Your task to perform on an android device: change your default location settings in chrome Image 0: 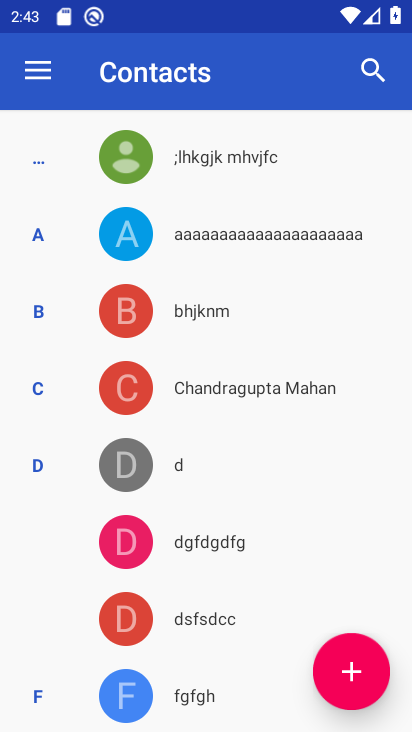
Step 0: press home button
Your task to perform on an android device: change your default location settings in chrome Image 1: 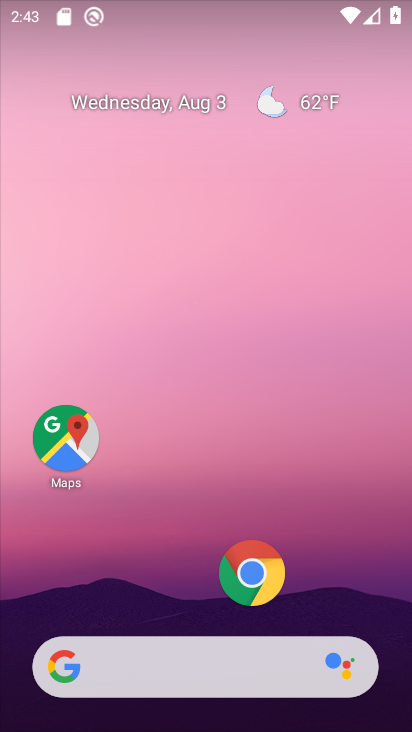
Step 1: click (258, 566)
Your task to perform on an android device: change your default location settings in chrome Image 2: 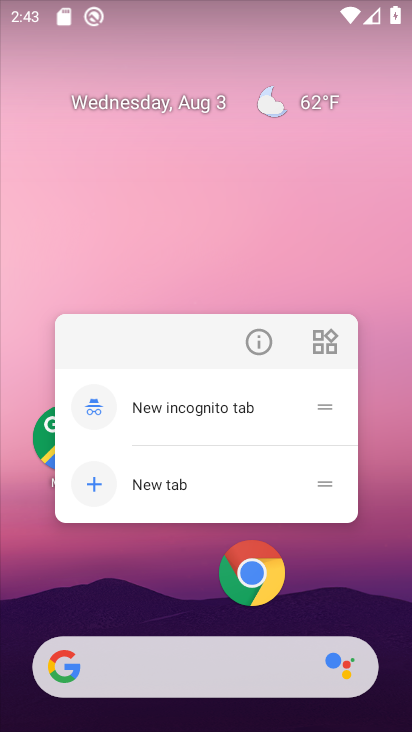
Step 2: click (270, 578)
Your task to perform on an android device: change your default location settings in chrome Image 3: 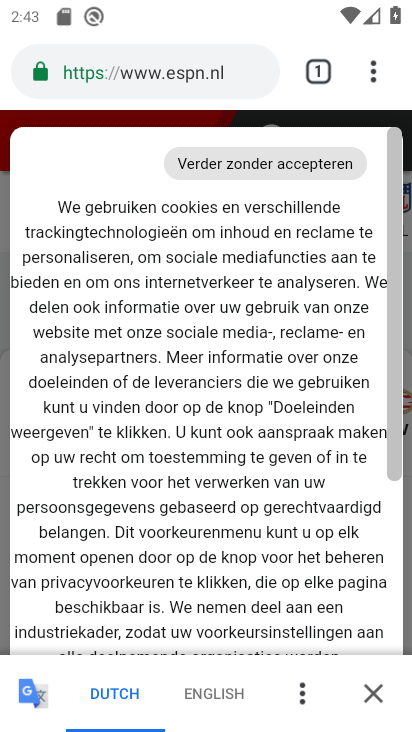
Step 3: click (181, 63)
Your task to perform on an android device: change your default location settings in chrome Image 4: 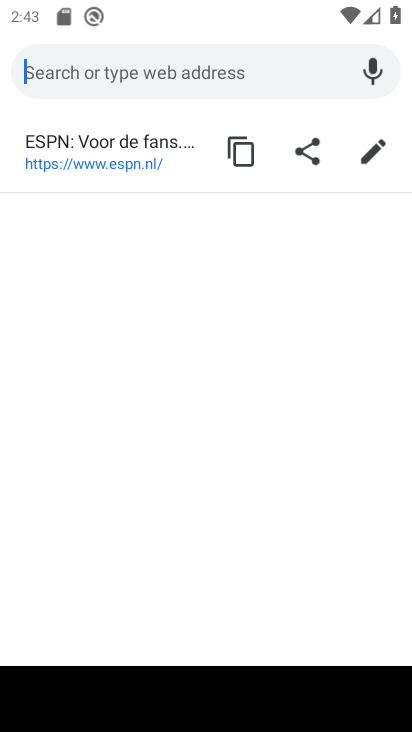
Step 4: press back button
Your task to perform on an android device: change your default location settings in chrome Image 5: 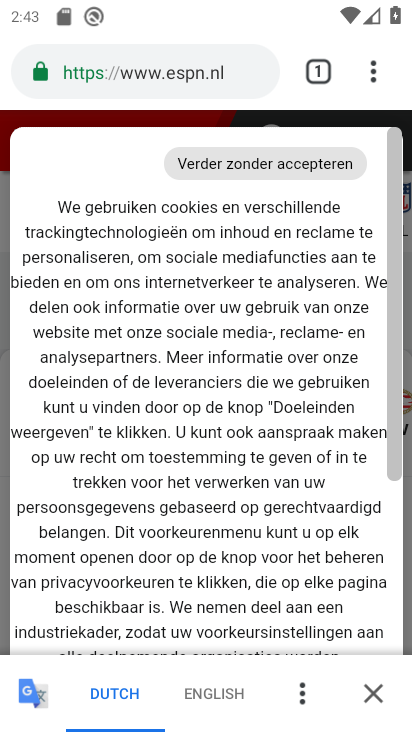
Step 5: click (375, 58)
Your task to perform on an android device: change your default location settings in chrome Image 6: 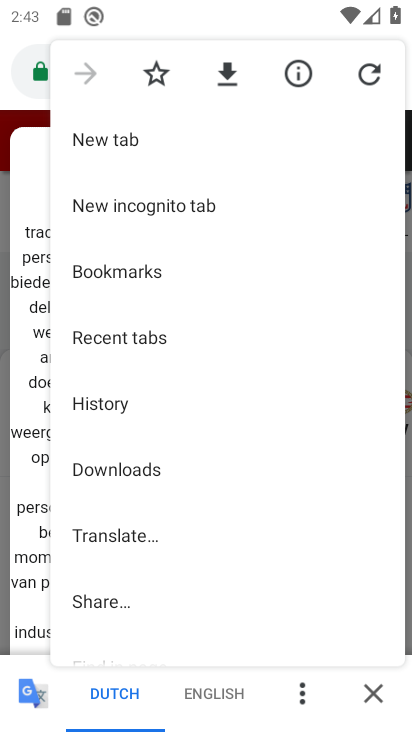
Step 6: drag from (145, 576) to (166, 238)
Your task to perform on an android device: change your default location settings in chrome Image 7: 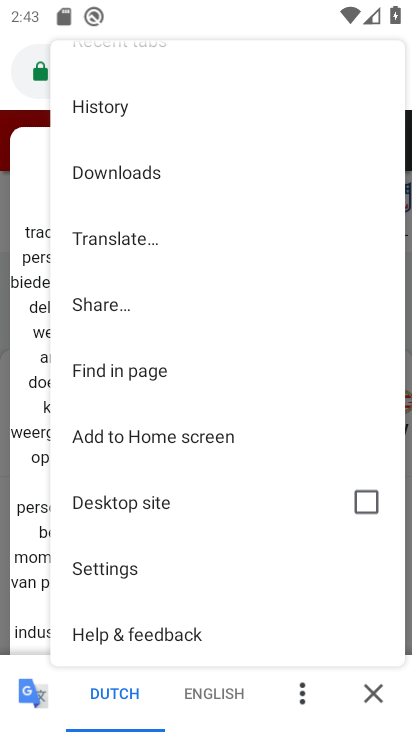
Step 7: click (123, 568)
Your task to perform on an android device: change your default location settings in chrome Image 8: 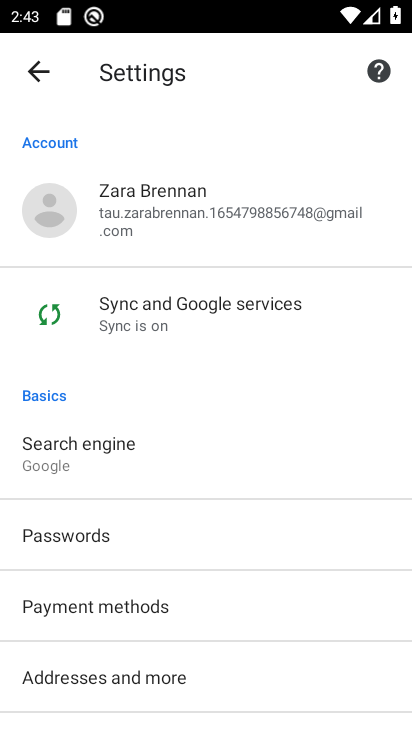
Step 8: drag from (183, 546) to (163, 267)
Your task to perform on an android device: change your default location settings in chrome Image 9: 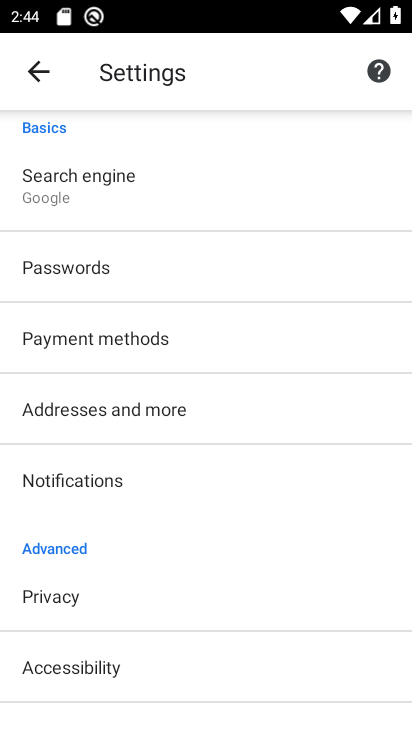
Step 9: drag from (141, 634) to (136, 348)
Your task to perform on an android device: change your default location settings in chrome Image 10: 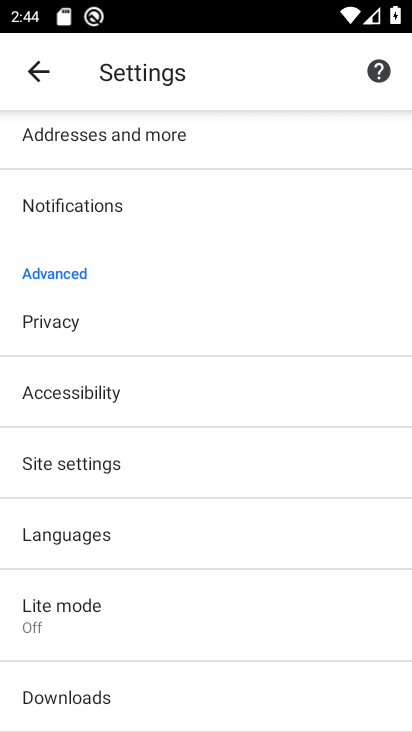
Step 10: click (90, 465)
Your task to perform on an android device: change your default location settings in chrome Image 11: 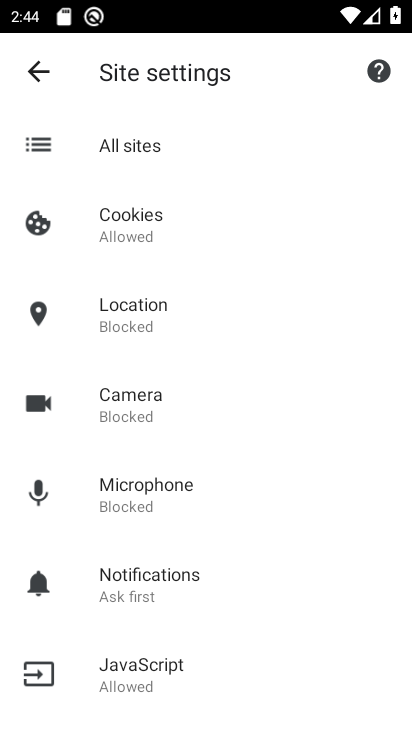
Step 11: click (143, 328)
Your task to perform on an android device: change your default location settings in chrome Image 12: 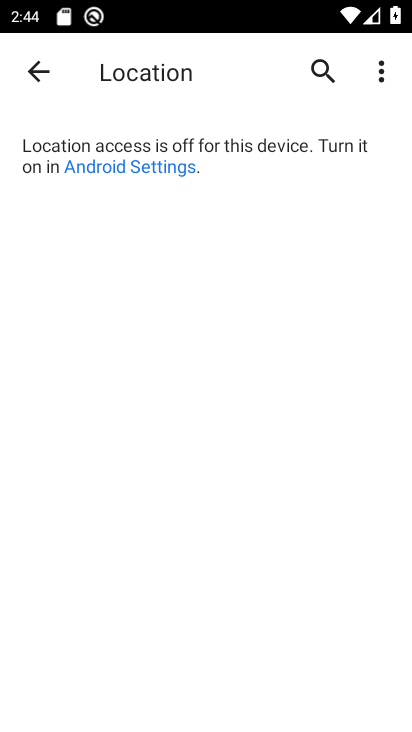
Step 12: click (126, 161)
Your task to perform on an android device: change your default location settings in chrome Image 13: 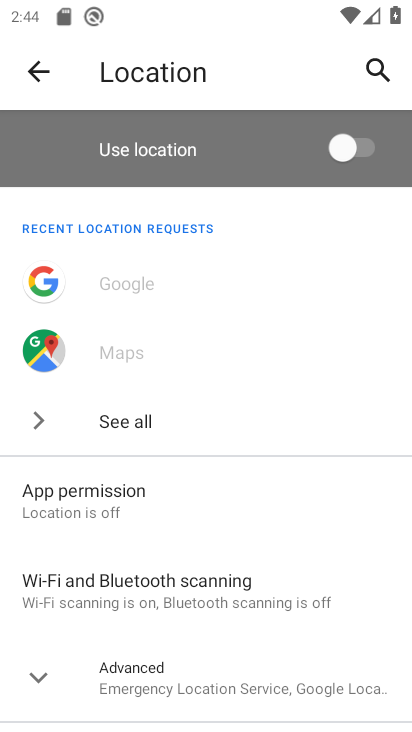
Step 13: click (328, 147)
Your task to perform on an android device: change your default location settings in chrome Image 14: 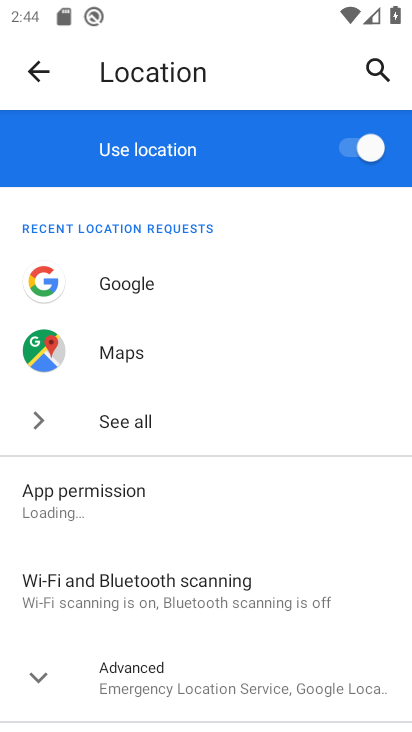
Step 14: task complete